Your task to perform on an android device: Open settings Image 0: 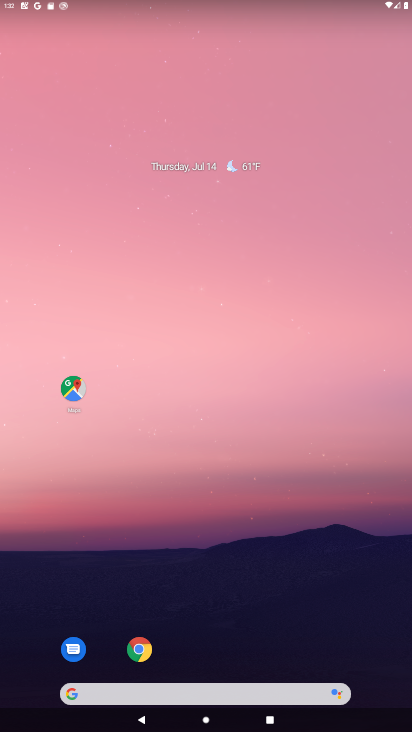
Step 0: drag from (205, 674) to (261, 5)
Your task to perform on an android device: Open settings Image 1: 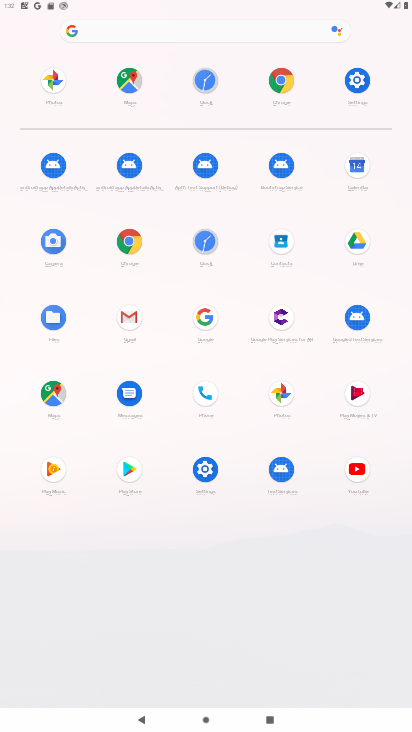
Step 1: click (359, 83)
Your task to perform on an android device: Open settings Image 2: 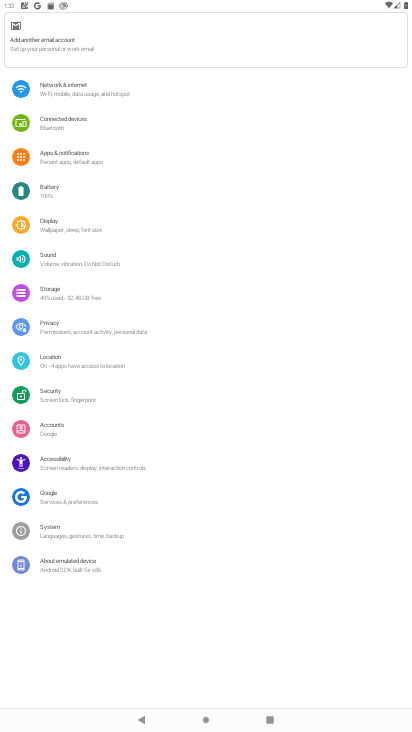
Step 2: task complete